Your task to perform on an android device: snooze an email in the gmail app Image 0: 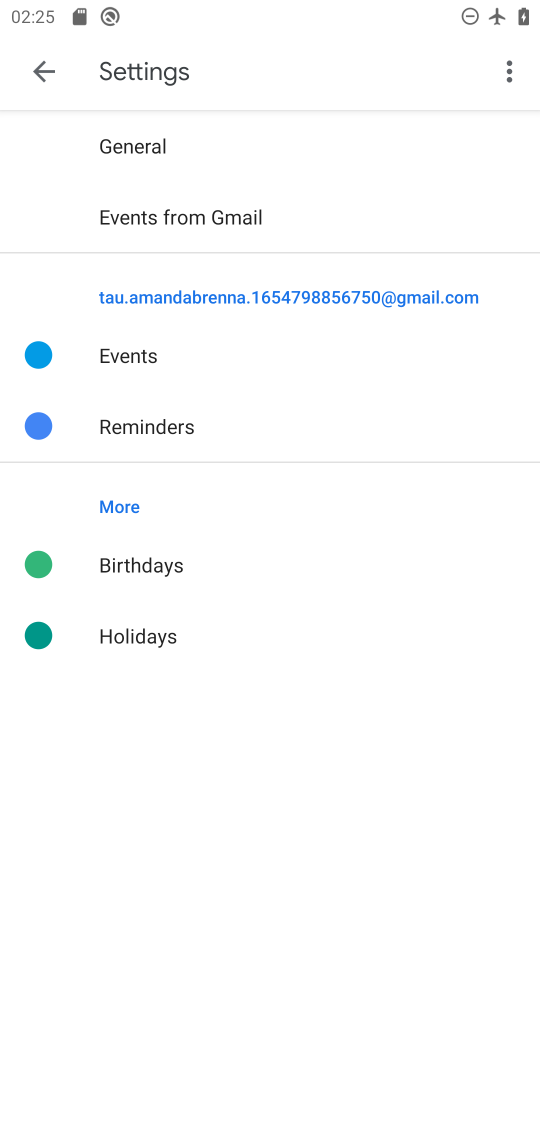
Step 0: press home button
Your task to perform on an android device: snooze an email in the gmail app Image 1: 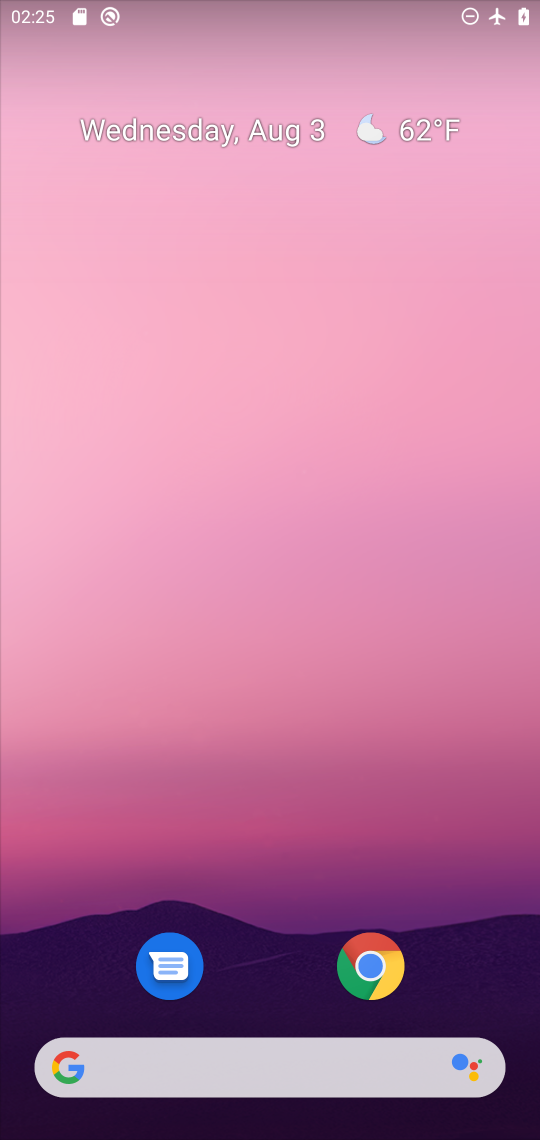
Step 1: drag from (260, 973) to (312, 313)
Your task to perform on an android device: snooze an email in the gmail app Image 2: 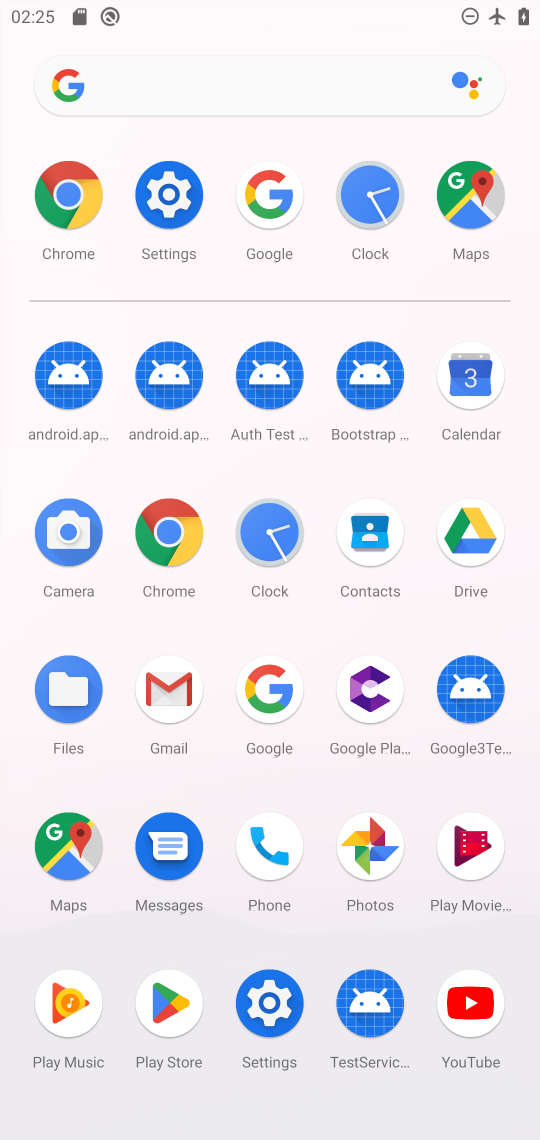
Step 2: click (176, 703)
Your task to perform on an android device: snooze an email in the gmail app Image 3: 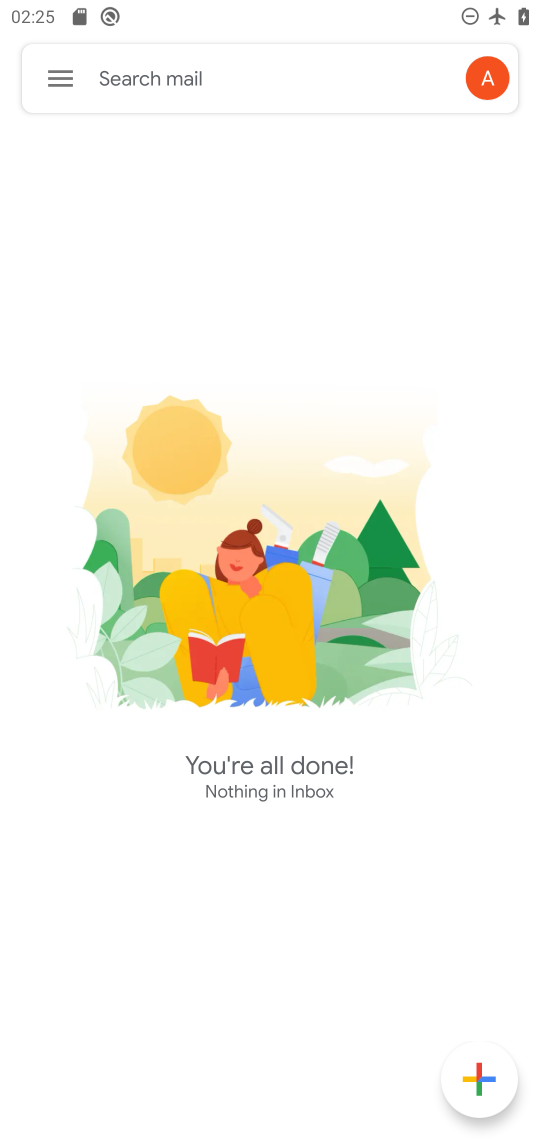
Step 3: click (66, 71)
Your task to perform on an android device: snooze an email in the gmail app Image 4: 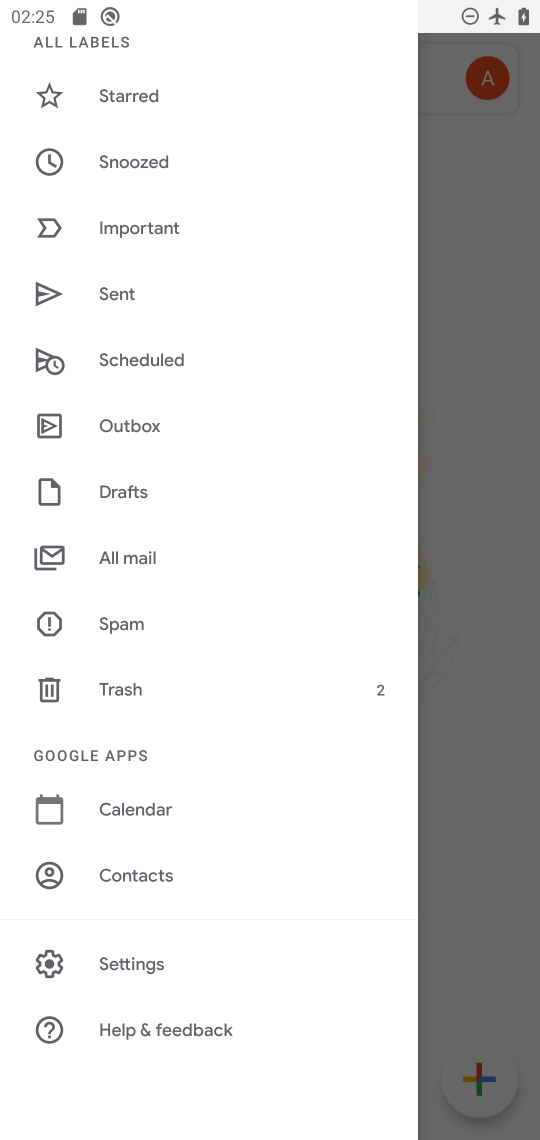
Step 4: click (145, 562)
Your task to perform on an android device: snooze an email in the gmail app Image 5: 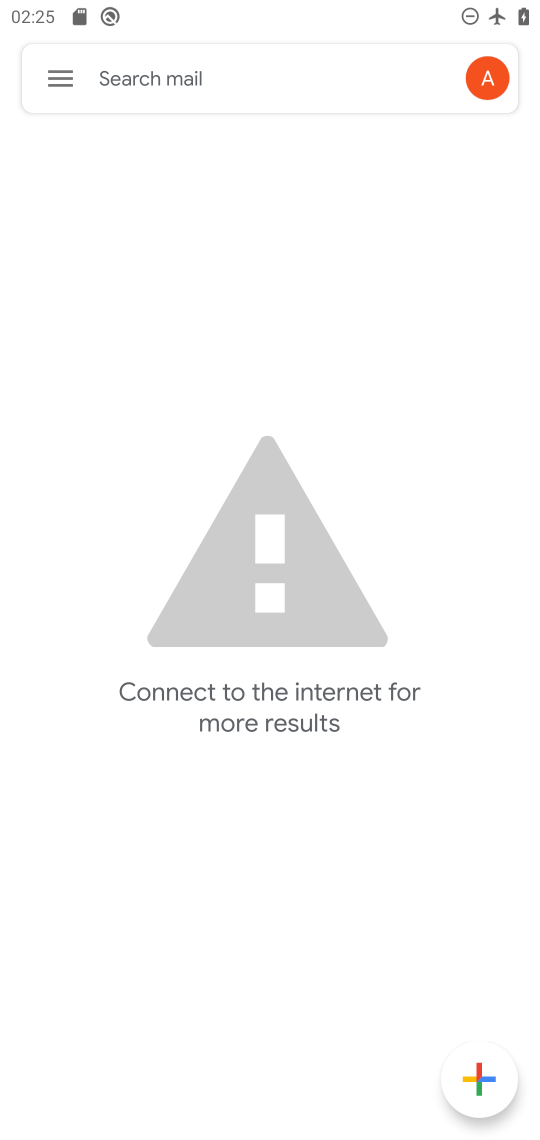
Step 5: task complete